Your task to perform on an android device: uninstall "Yahoo Mail" Image 0: 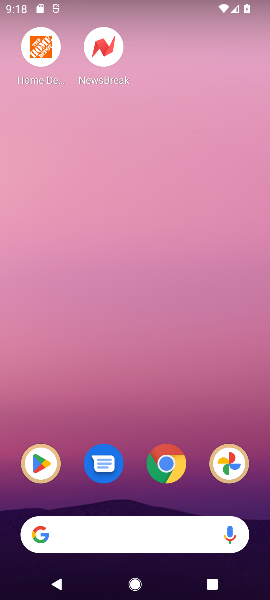
Step 0: click (37, 456)
Your task to perform on an android device: uninstall "Yahoo Mail" Image 1: 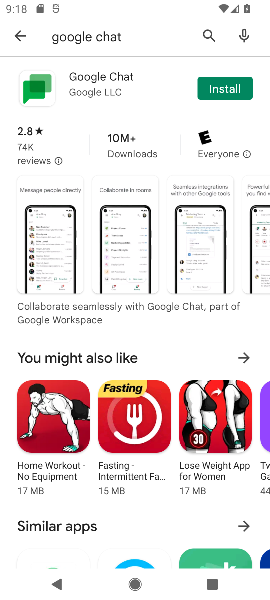
Step 1: click (202, 43)
Your task to perform on an android device: uninstall "Yahoo Mail" Image 2: 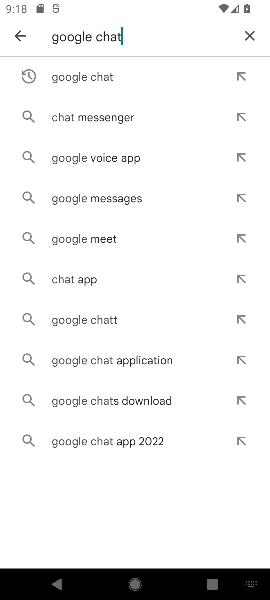
Step 2: click (249, 38)
Your task to perform on an android device: uninstall "Yahoo Mail" Image 3: 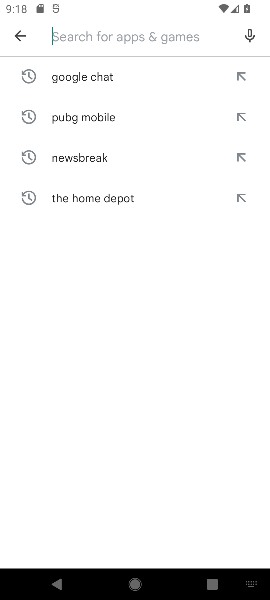
Step 3: click (149, 38)
Your task to perform on an android device: uninstall "Yahoo Mail" Image 4: 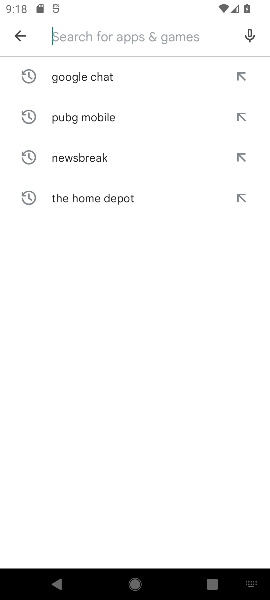
Step 4: type "yahoo mail"
Your task to perform on an android device: uninstall "Yahoo Mail" Image 5: 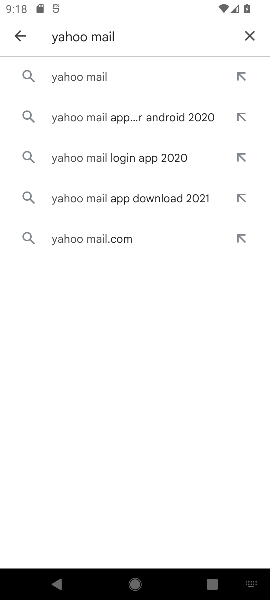
Step 5: click (99, 68)
Your task to perform on an android device: uninstall "Yahoo Mail" Image 6: 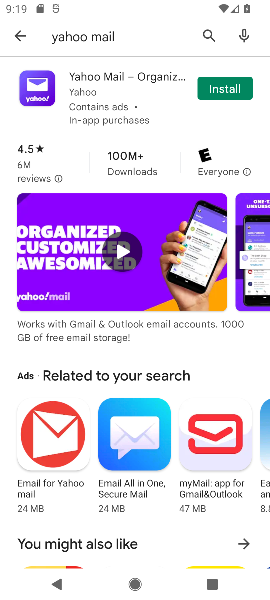
Step 6: task complete